Your task to perform on an android device: Is it going to rain tomorrow? Image 0: 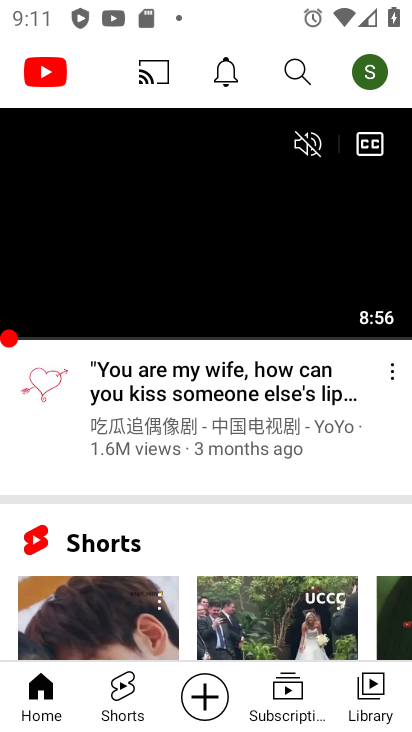
Step 0: press home button
Your task to perform on an android device: Is it going to rain tomorrow? Image 1: 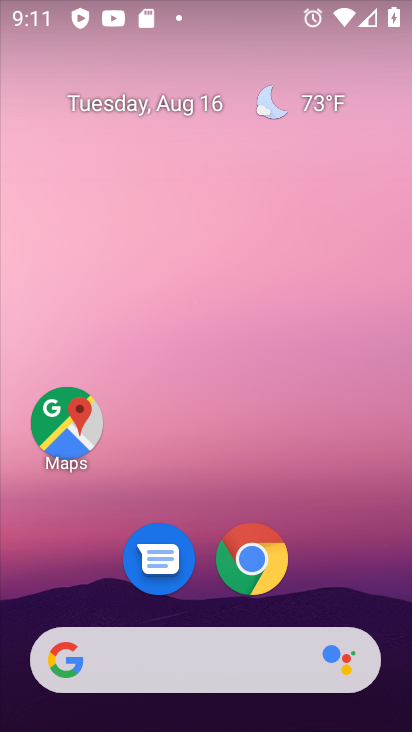
Step 1: drag from (221, 658) to (173, 119)
Your task to perform on an android device: Is it going to rain tomorrow? Image 2: 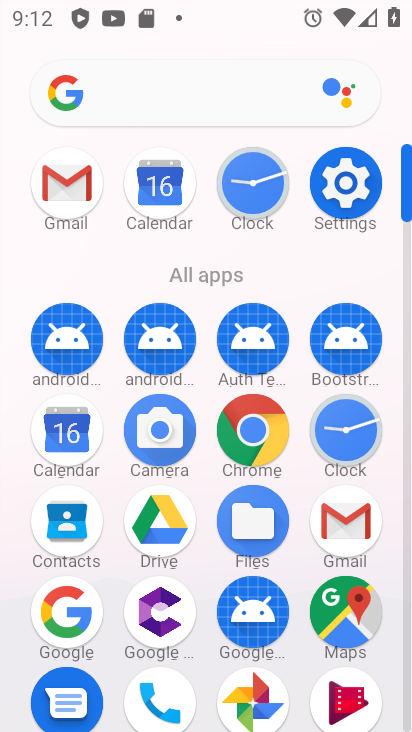
Step 2: click (58, 616)
Your task to perform on an android device: Is it going to rain tomorrow? Image 3: 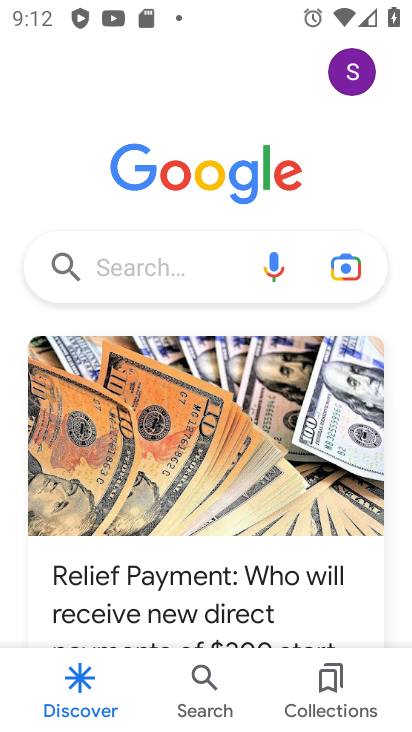
Step 3: click (179, 265)
Your task to perform on an android device: Is it going to rain tomorrow? Image 4: 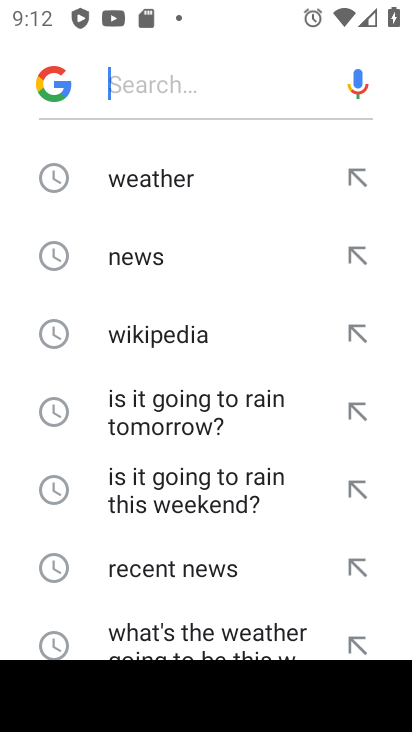
Step 4: type "Is it going to rain tomorrow?"
Your task to perform on an android device: Is it going to rain tomorrow? Image 5: 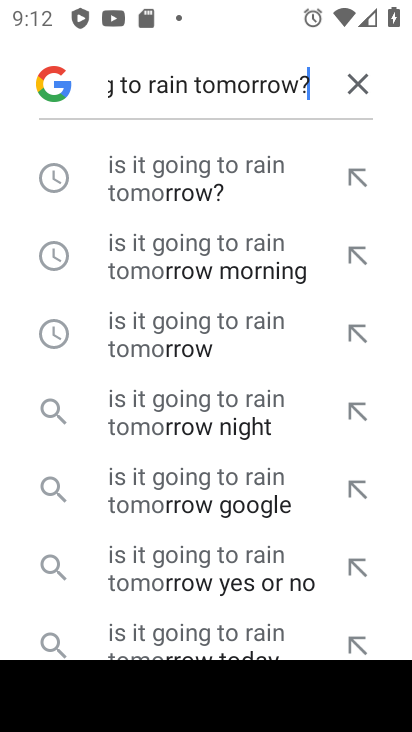
Step 5: type ""
Your task to perform on an android device: Is it going to rain tomorrow? Image 6: 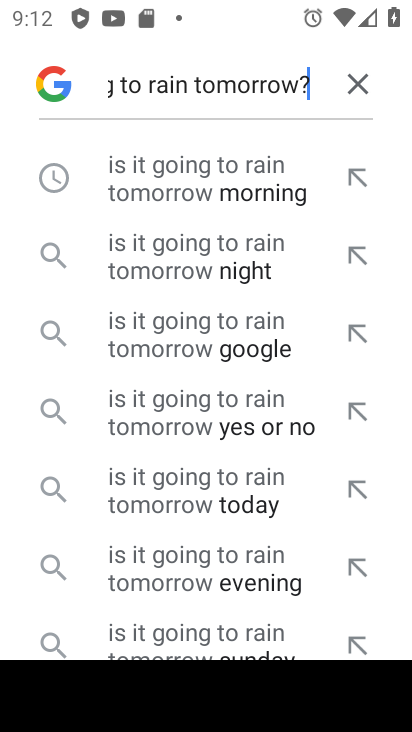
Step 6: click (203, 196)
Your task to perform on an android device: Is it going to rain tomorrow? Image 7: 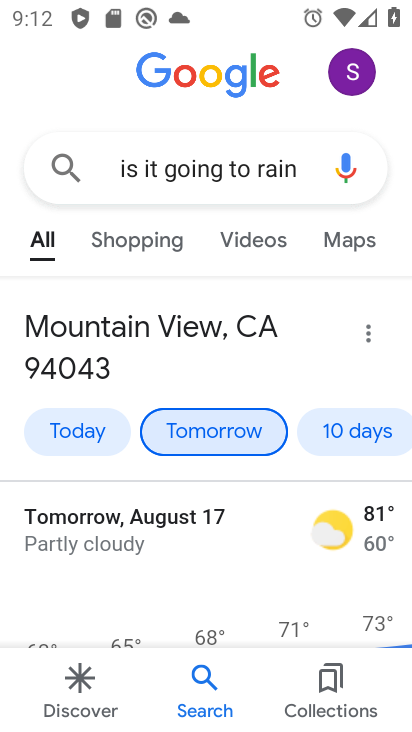
Step 7: task complete